Your task to perform on an android device: clear all cookies in the chrome app Image 0: 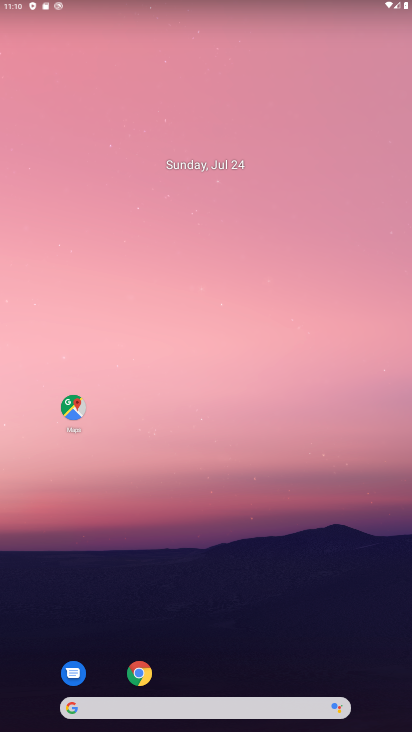
Step 0: drag from (343, 607) to (288, 53)
Your task to perform on an android device: clear all cookies in the chrome app Image 1: 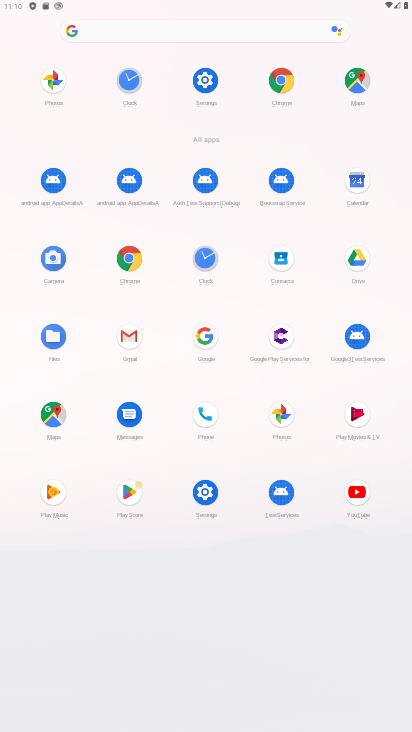
Step 1: click (277, 83)
Your task to perform on an android device: clear all cookies in the chrome app Image 2: 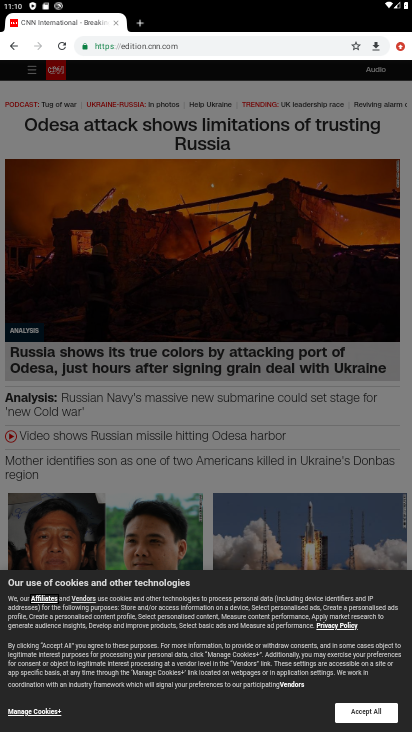
Step 2: drag from (407, 42) to (312, 171)
Your task to perform on an android device: clear all cookies in the chrome app Image 3: 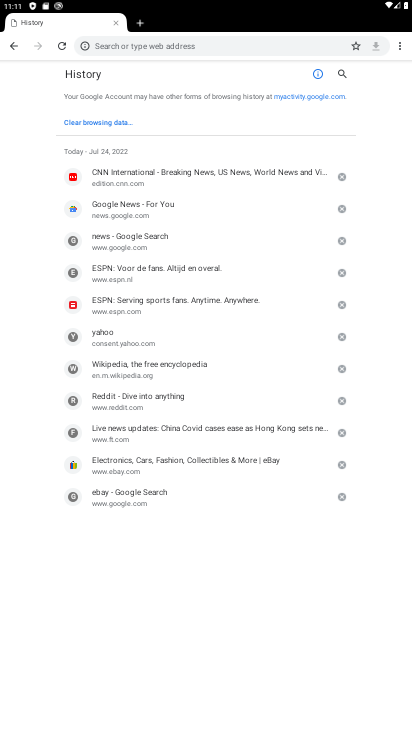
Step 3: click (106, 119)
Your task to perform on an android device: clear all cookies in the chrome app Image 4: 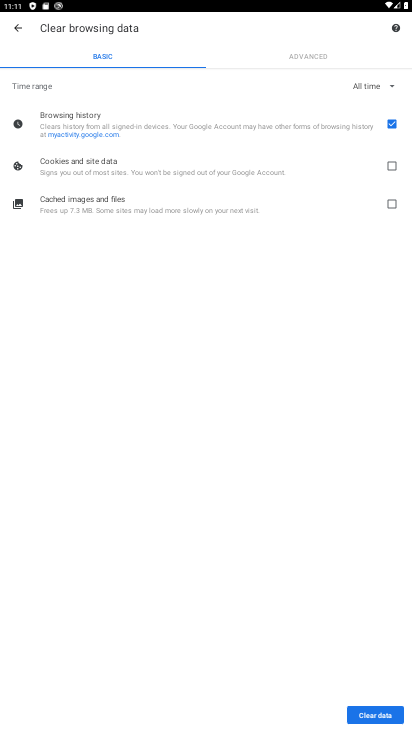
Step 4: click (389, 167)
Your task to perform on an android device: clear all cookies in the chrome app Image 5: 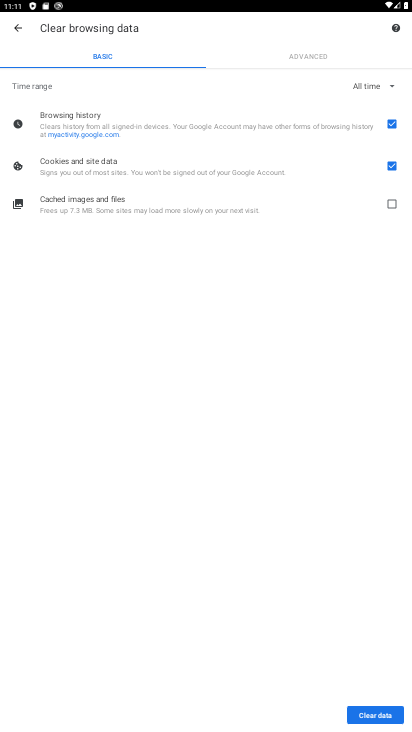
Step 5: click (384, 717)
Your task to perform on an android device: clear all cookies in the chrome app Image 6: 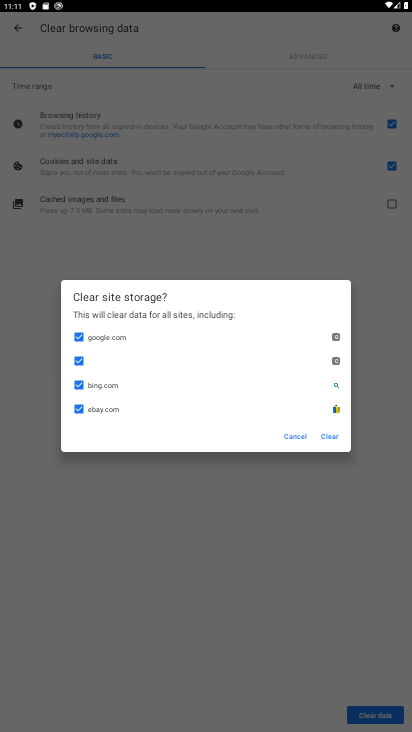
Step 6: click (337, 429)
Your task to perform on an android device: clear all cookies in the chrome app Image 7: 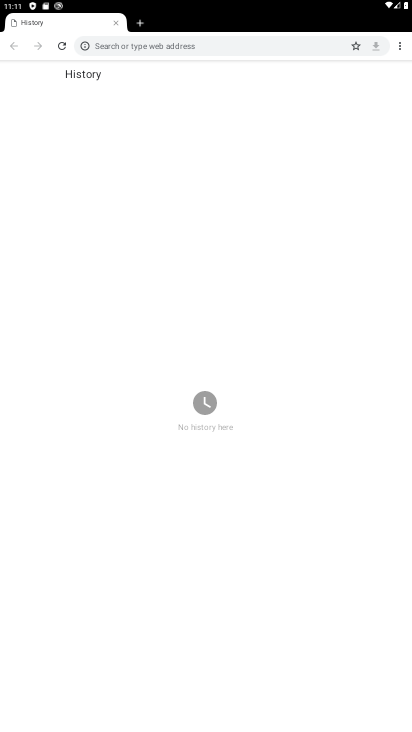
Step 7: task complete